Your task to perform on an android device: Open Google Maps Image 0: 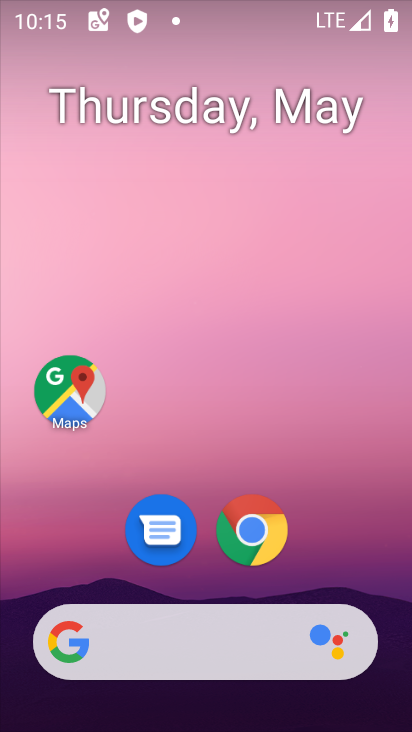
Step 0: click (74, 388)
Your task to perform on an android device: Open Google Maps Image 1: 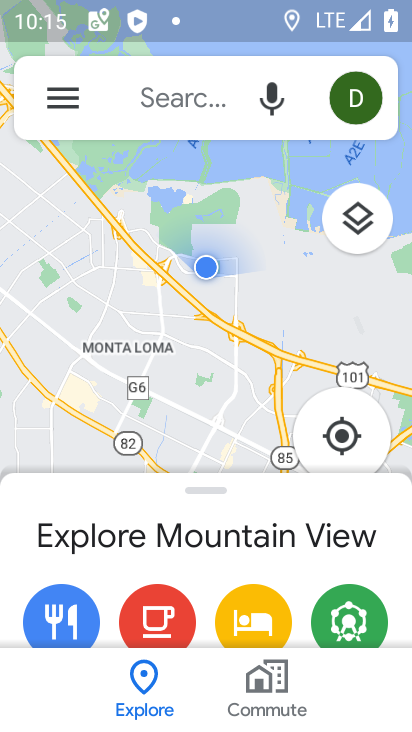
Step 1: task complete